Your task to perform on an android device: turn on priority inbox in the gmail app Image 0: 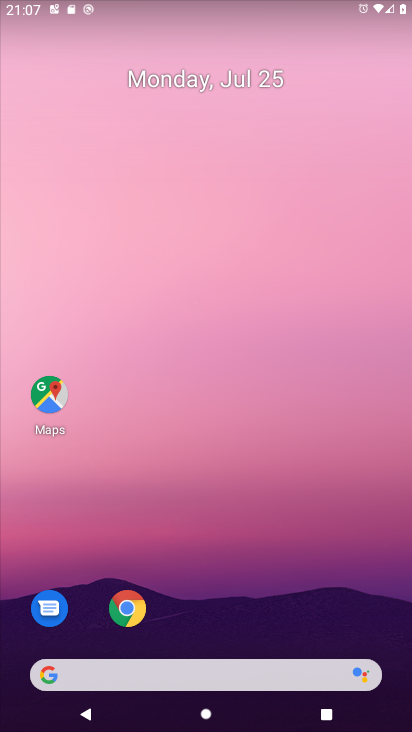
Step 0: drag from (184, 537) to (124, 164)
Your task to perform on an android device: turn on priority inbox in the gmail app Image 1: 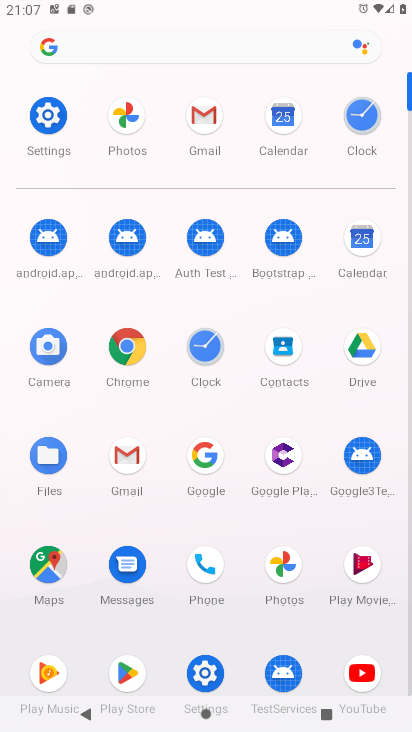
Step 1: click (211, 108)
Your task to perform on an android device: turn on priority inbox in the gmail app Image 2: 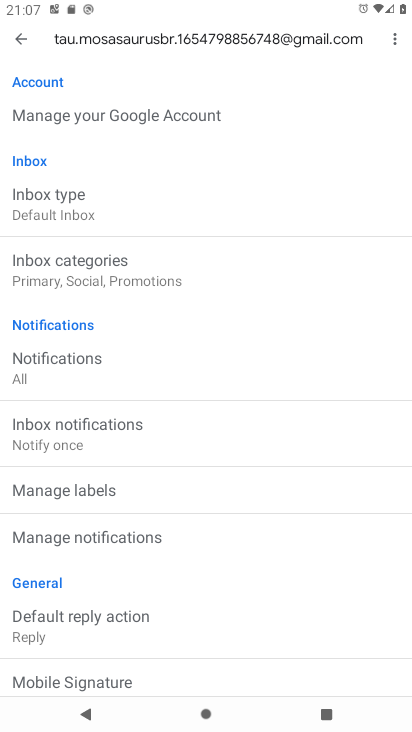
Step 2: click (59, 192)
Your task to perform on an android device: turn on priority inbox in the gmail app Image 3: 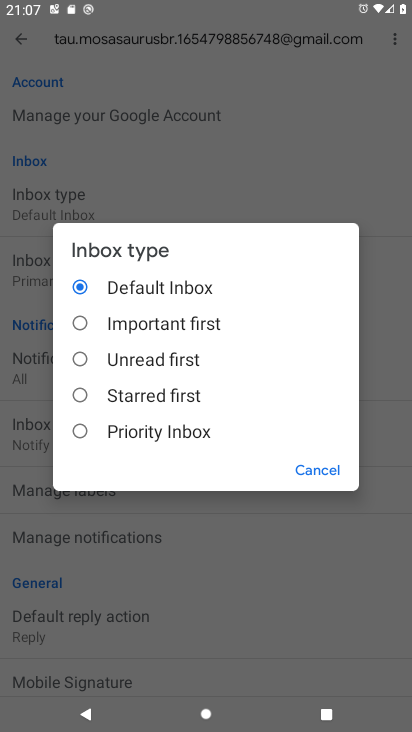
Step 3: click (118, 424)
Your task to perform on an android device: turn on priority inbox in the gmail app Image 4: 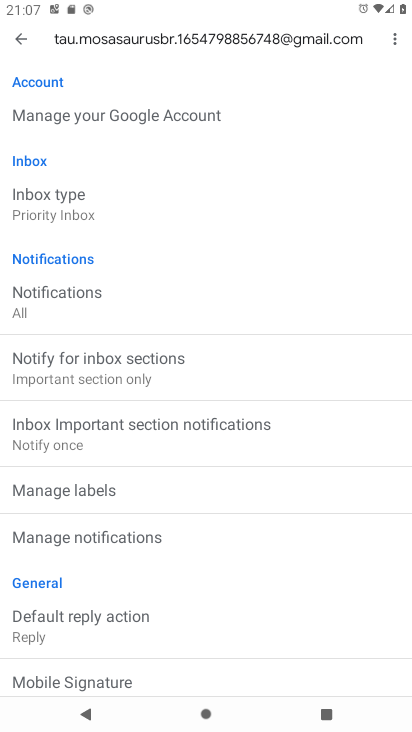
Step 4: task complete